Your task to perform on an android device: open the mobile data screen to see how much data has been used Image 0: 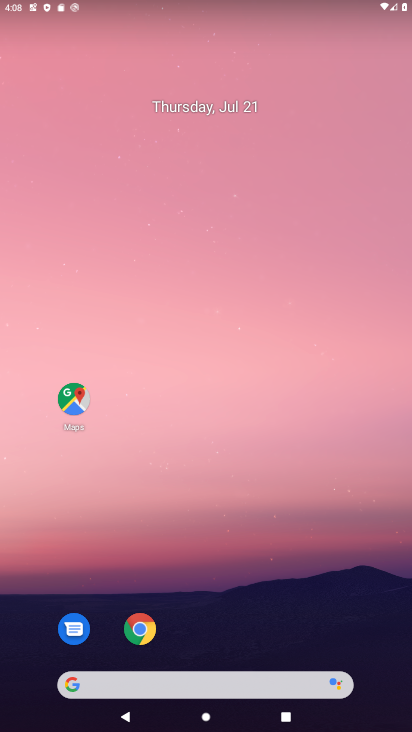
Step 0: drag from (337, 619) to (257, 335)
Your task to perform on an android device: open the mobile data screen to see how much data has been used Image 1: 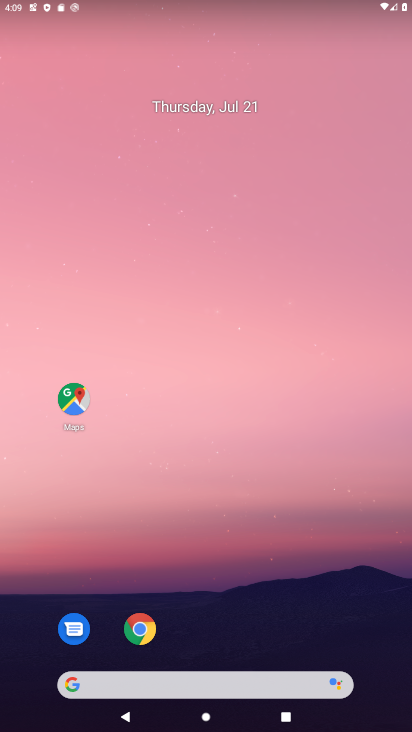
Step 1: drag from (222, 603) to (78, 32)
Your task to perform on an android device: open the mobile data screen to see how much data has been used Image 2: 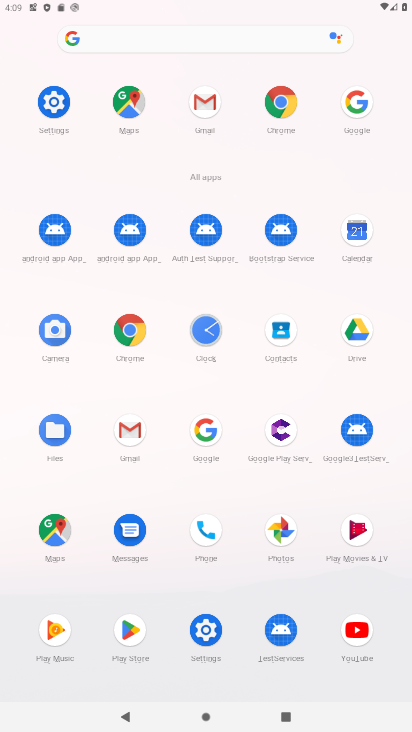
Step 2: click (53, 112)
Your task to perform on an android device: open the mobile data screen to see how much data has been used Image 3: 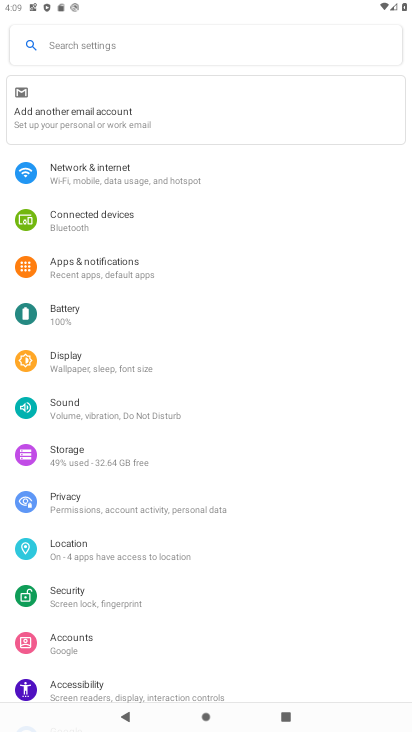
Step 3: click (99, 181)
Your task to perform on an android device: open the mobile data screen to see how much data has been used Image 4: 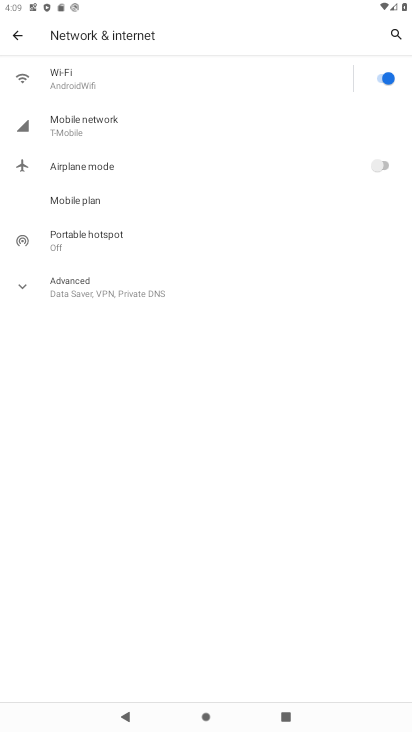
Step 4: click (79, 131)
Your task to perform on an android device: open the mobile data screen to see how much data has been used Image 5: 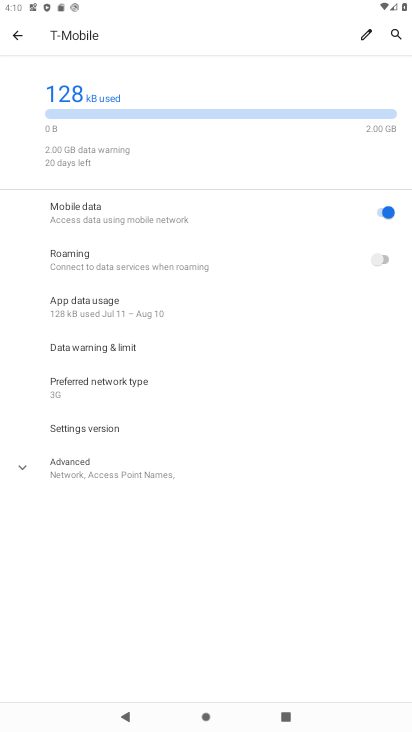
Step 5: task complete